Your task to perform on an android device: toggle airplane mode Image 0: 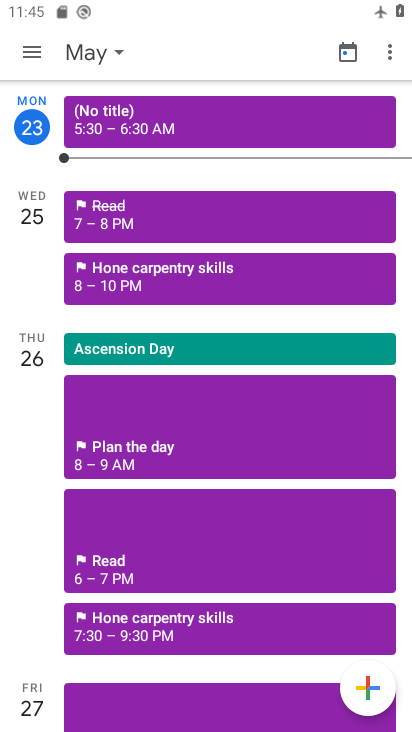
Step 0: press home button
Your task to perform on an android device: toggle airplane mode Image 1: 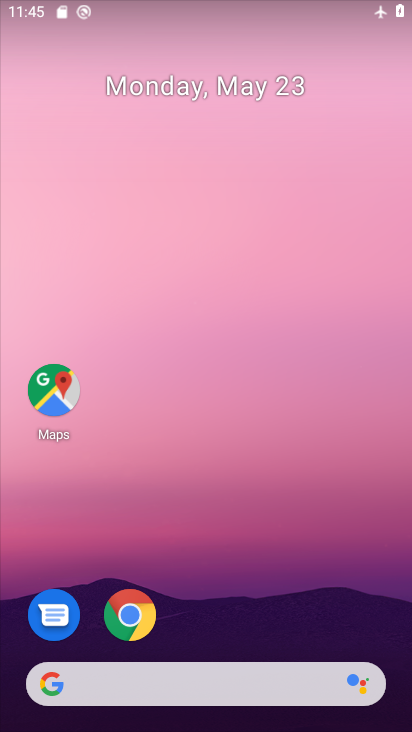
Step 1: drag from (274, 618) to (207, 44)
Your task to perform on an android device: toggle airplane mode Image 2: 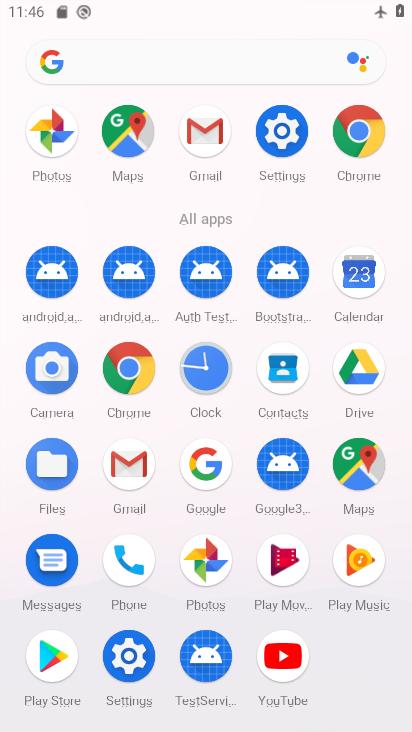
Step 2: click (278, 134)
Your task to perform on an android device: toggle airplane mode Image 3: 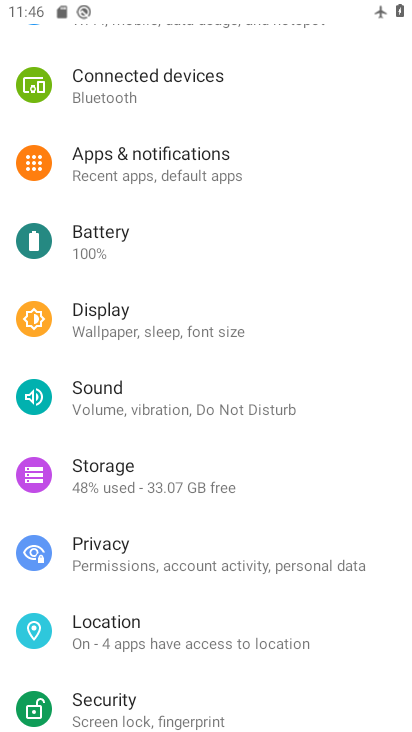
Step 3: drag from (278, 134) to (254, 267)
Your task to perform on an android device: toggle airplane mode Image 4: 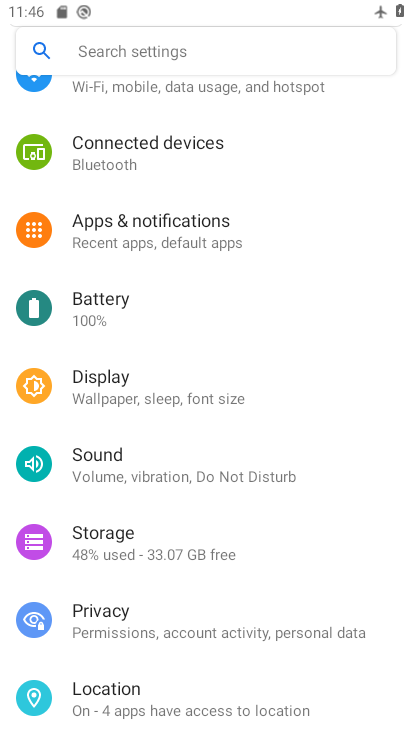
Step 4: drag from (244, 152) to (271, 292)
Your task to perform on an android device: toggle airplane mode Image 5: 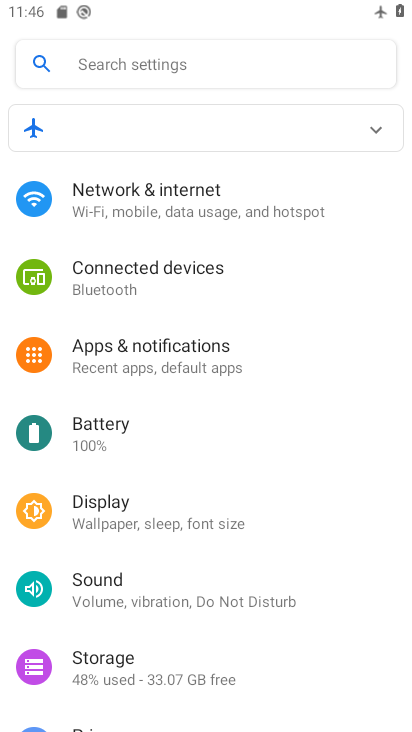
Step 5: click (218, 223)
Your task to perform on an android device: toggle airplane mode Image 6: 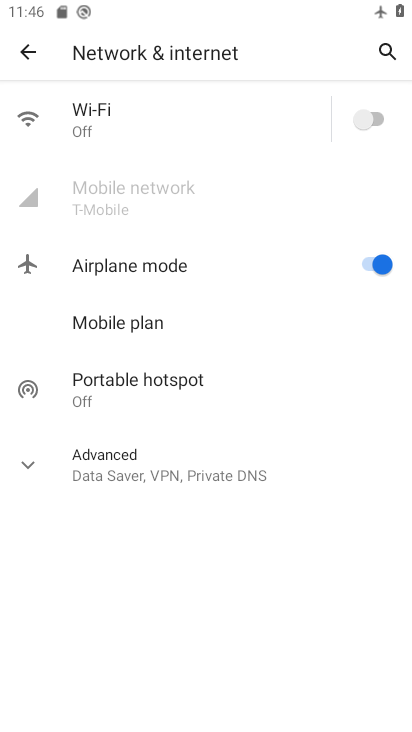
Step 6: click (368, 262)
Your task to perform on an android device: toggle airplane mode Image 7: 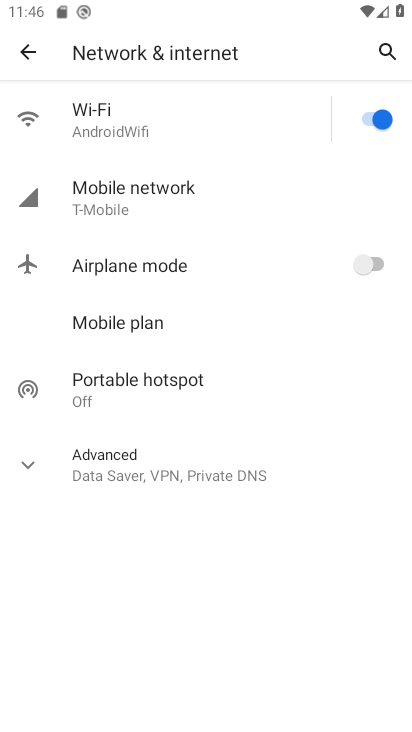
Step 7: task complete